Your task to perform on an android device: change keyboard looks Image 0: 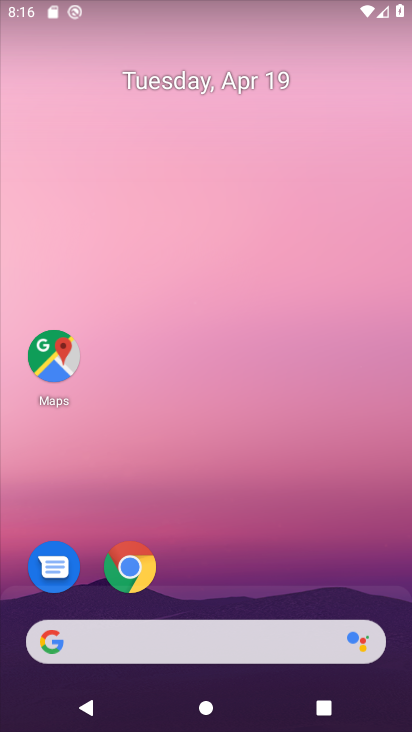
Step 0: drag from (233, 616) to (248, 66)
Your task to perform on an android device: change keyboard looks Image 1: 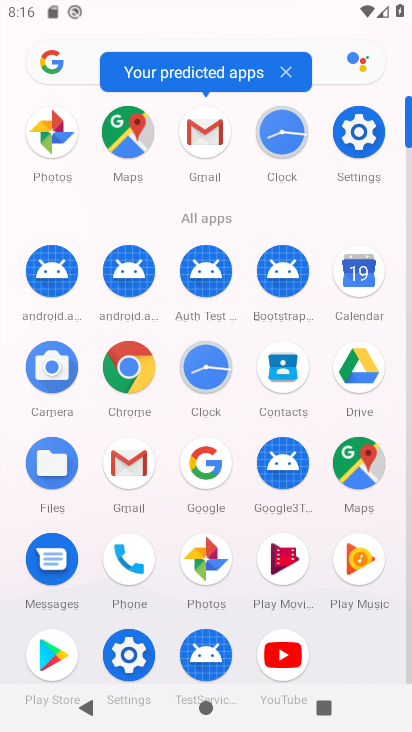
Step 1: click (367, 125)
Your task to perform on an android device: change keyboard looks Image 2: 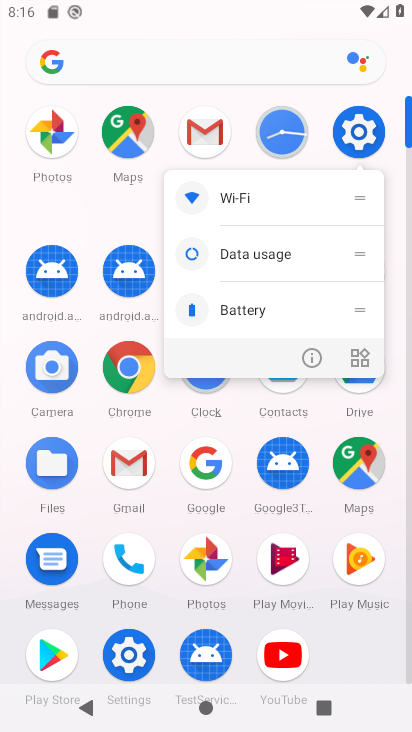
Step 2: click (367, 125)
Your task to perform on an android device: change keyboard looks Image 3: 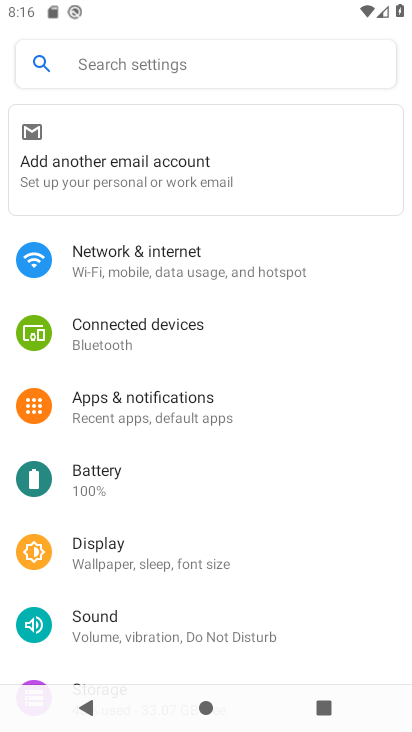
Step 3: drag from (299, 592) to (363, 76)
Your task to perform on an android device: change keyboard looks Image 4: 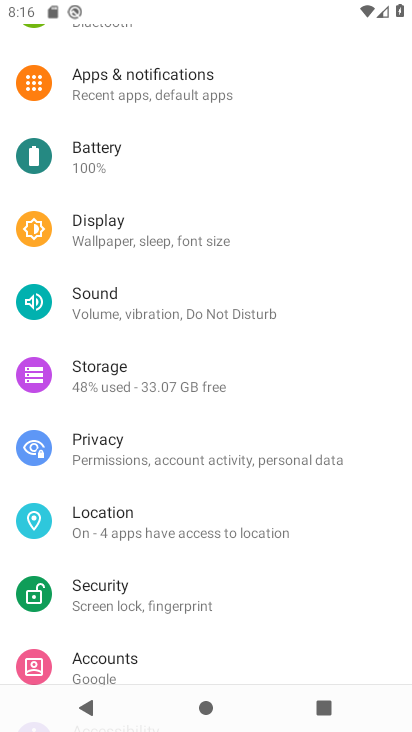
Step 4: drag from (278, 645) to (313, 38)
Your task to perform on an android device: change keyboard looks Image 5: 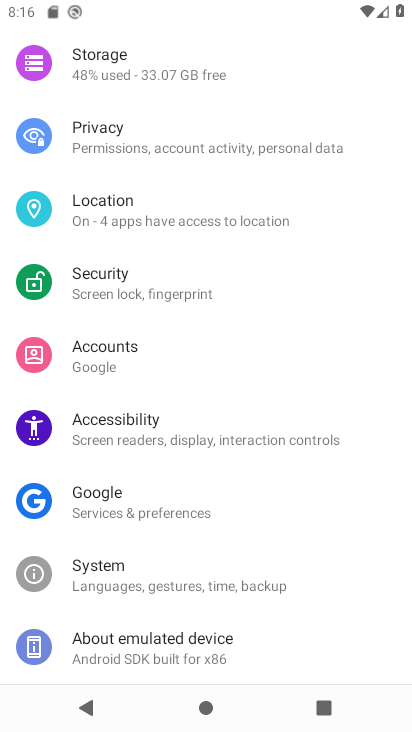
Step 5: click (265, 583)
Your task to perform on an android device: change keyboard looks Image 6: 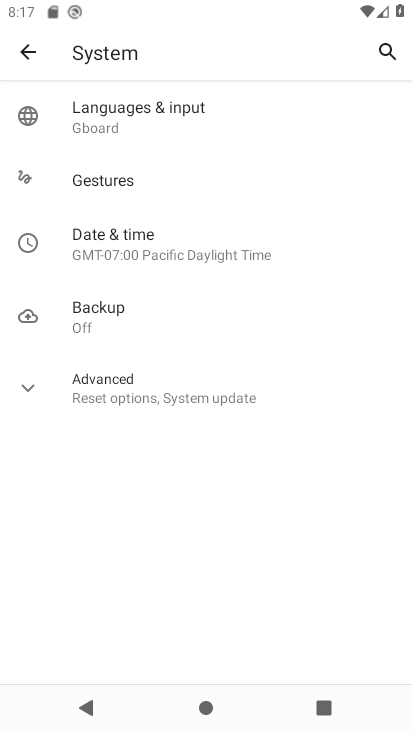
Step 6: click (158, 114)
Your task to perform on an android device: change keyboard looks Image 7: 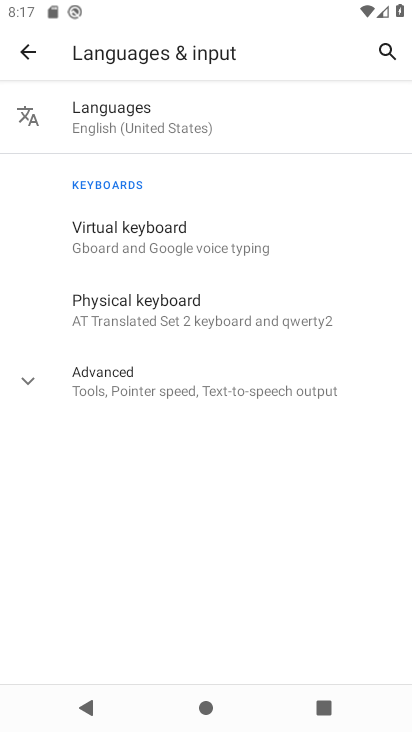
Step 7: click (151, 219)
Your task to perform on an android device: change keyboard looks Image 8: 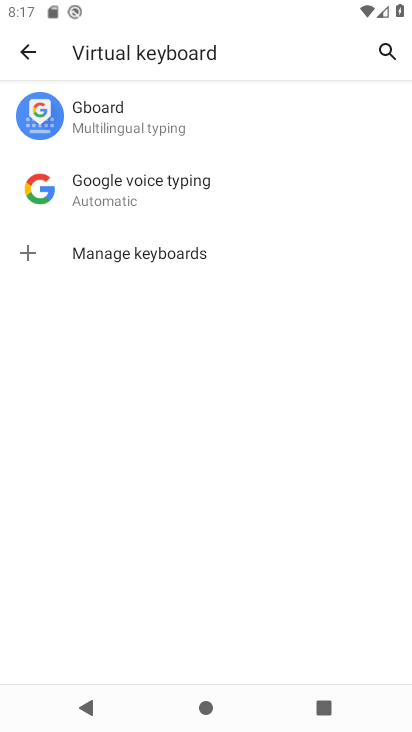
Step 8: click (156, 110)
Your task to perform on an android device: change keyboard looks Image 9: 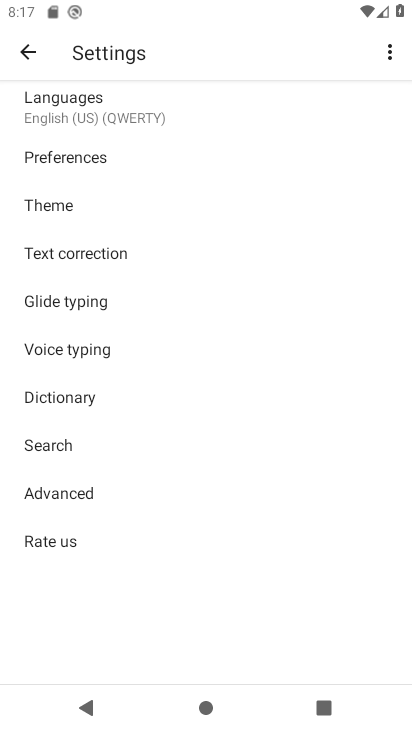
Step 9: click (54, 203)
Your task to perform on an android device: change keyboard looks Image 10: 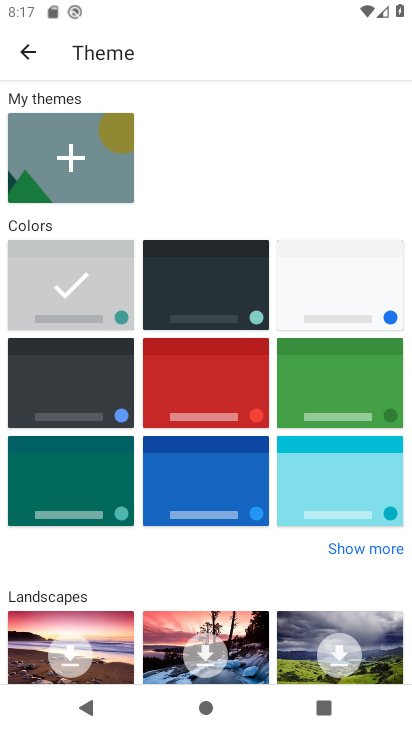
Step 10: click (221, 378)
Your task to perform on an android device: change keyboard looks Image 11: 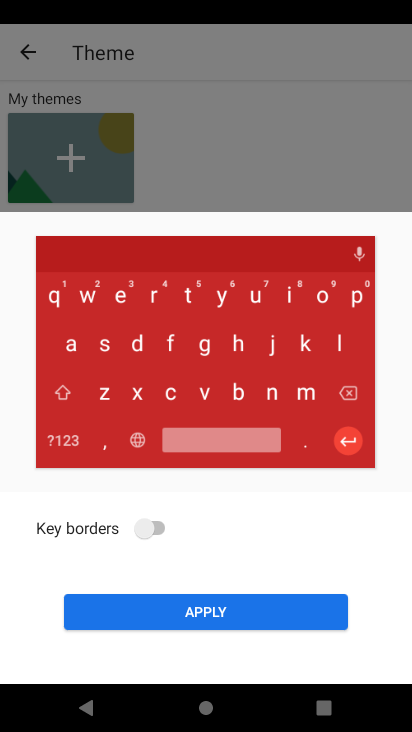
Step 11: click (264, 612)
Your task to perform on an android device: change keyboard looks Image 12: 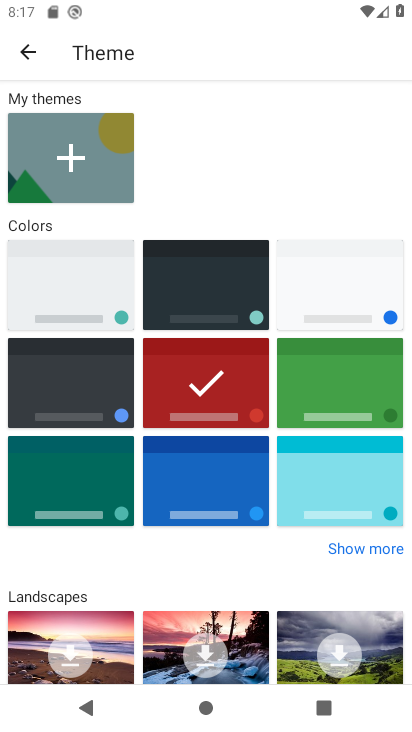
Step 12: task complete